Your task to perform on an android device: Go to Yahoo.com Image 0: 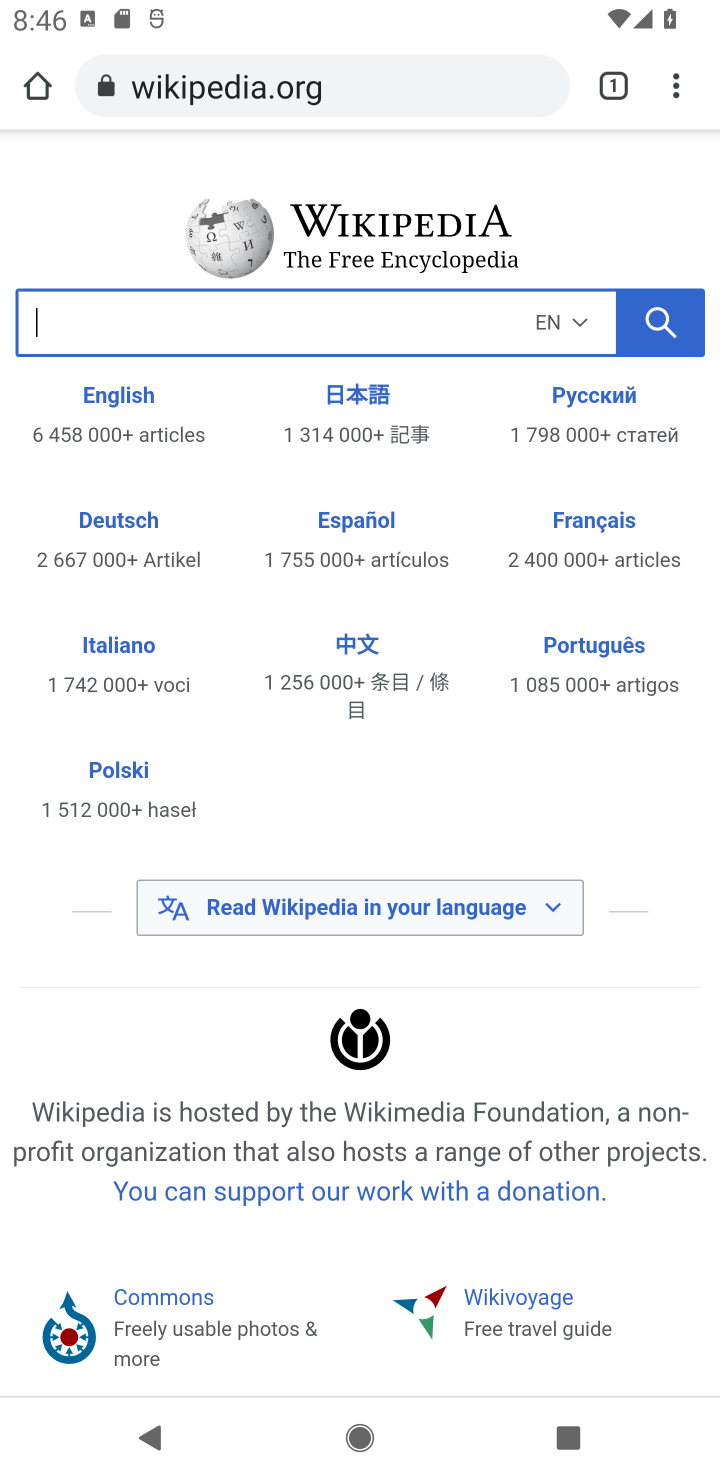
Step 0: click (410, 79)
Your task to perform on an android device: Go to Yahoo.com Image 1: 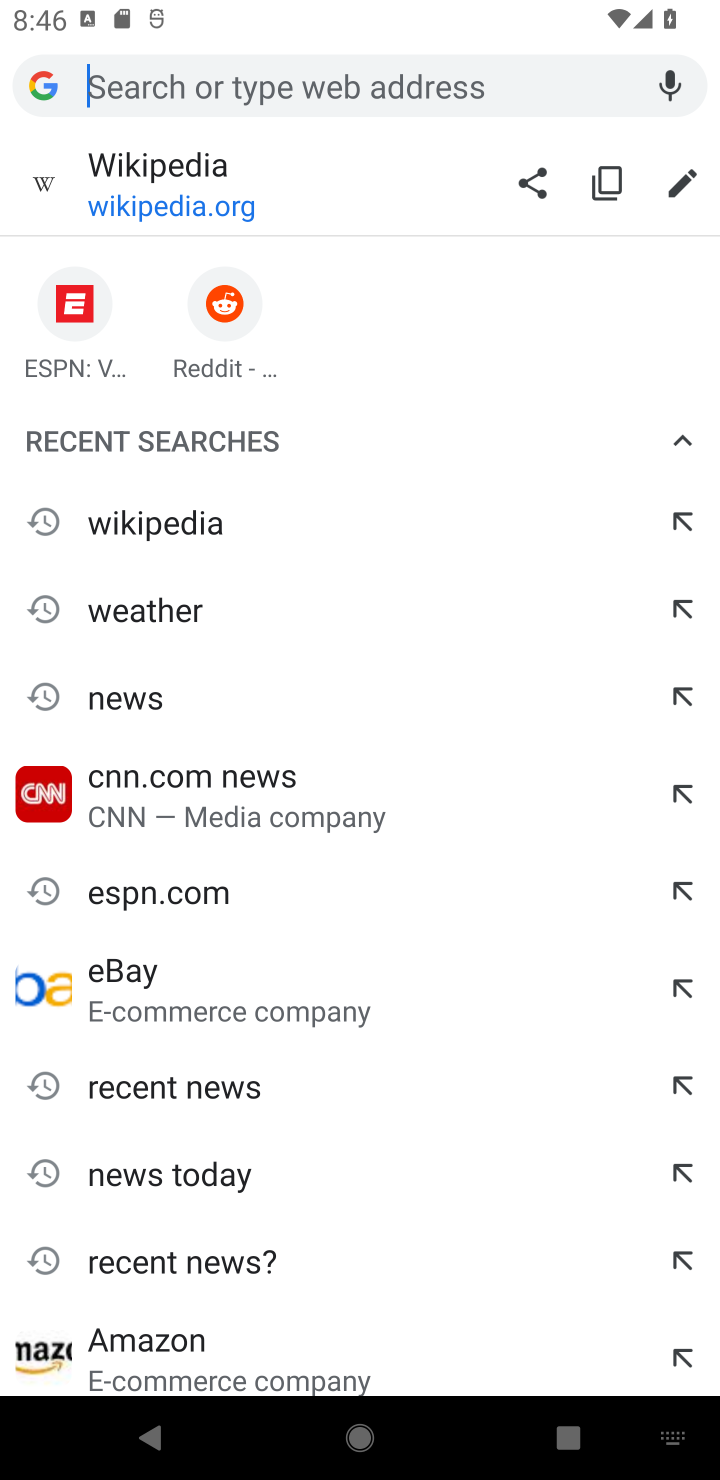
Step 1: type "Yahoo.com"
Your task to perform on an android device: Go to Yahoo.com Image 2: 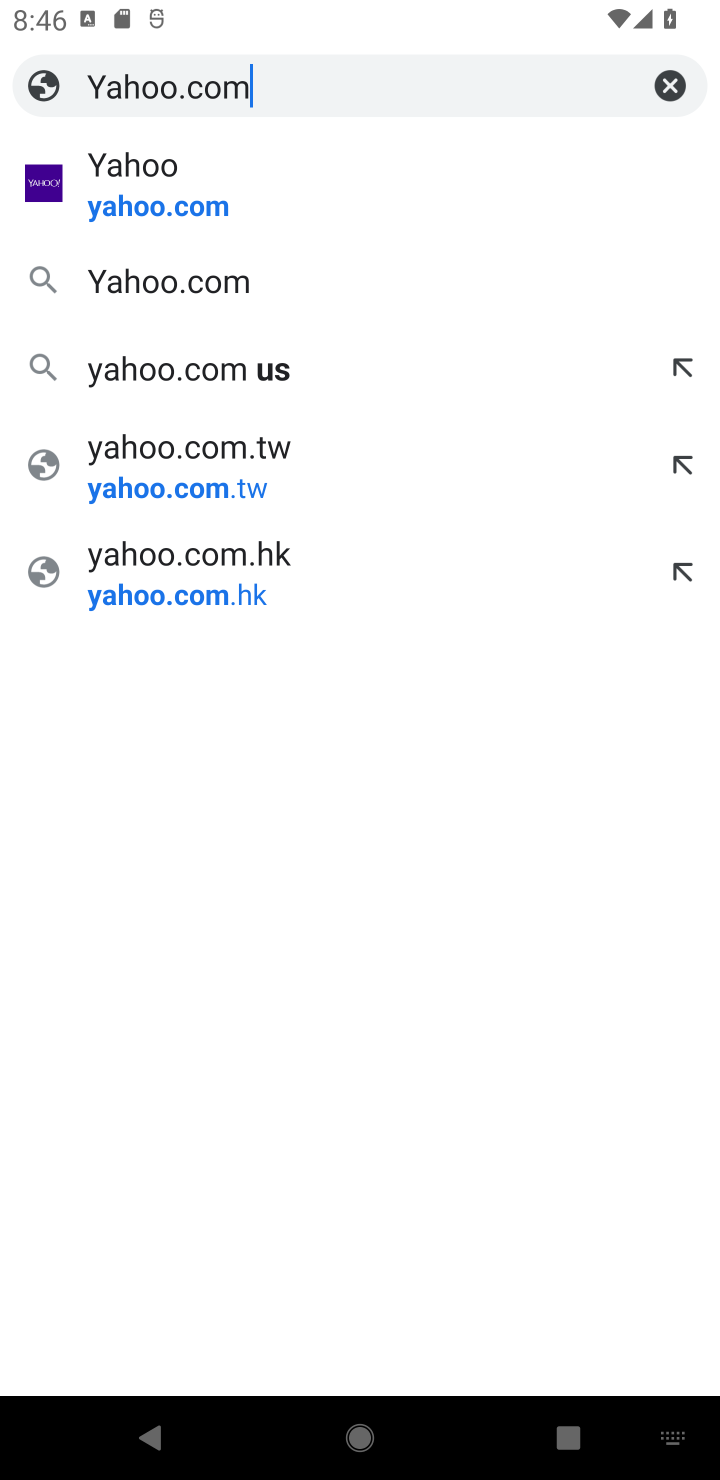
Step 2: click (164, 194)
Your task to perform on an android device: Go to Yahoo.com Image 3: 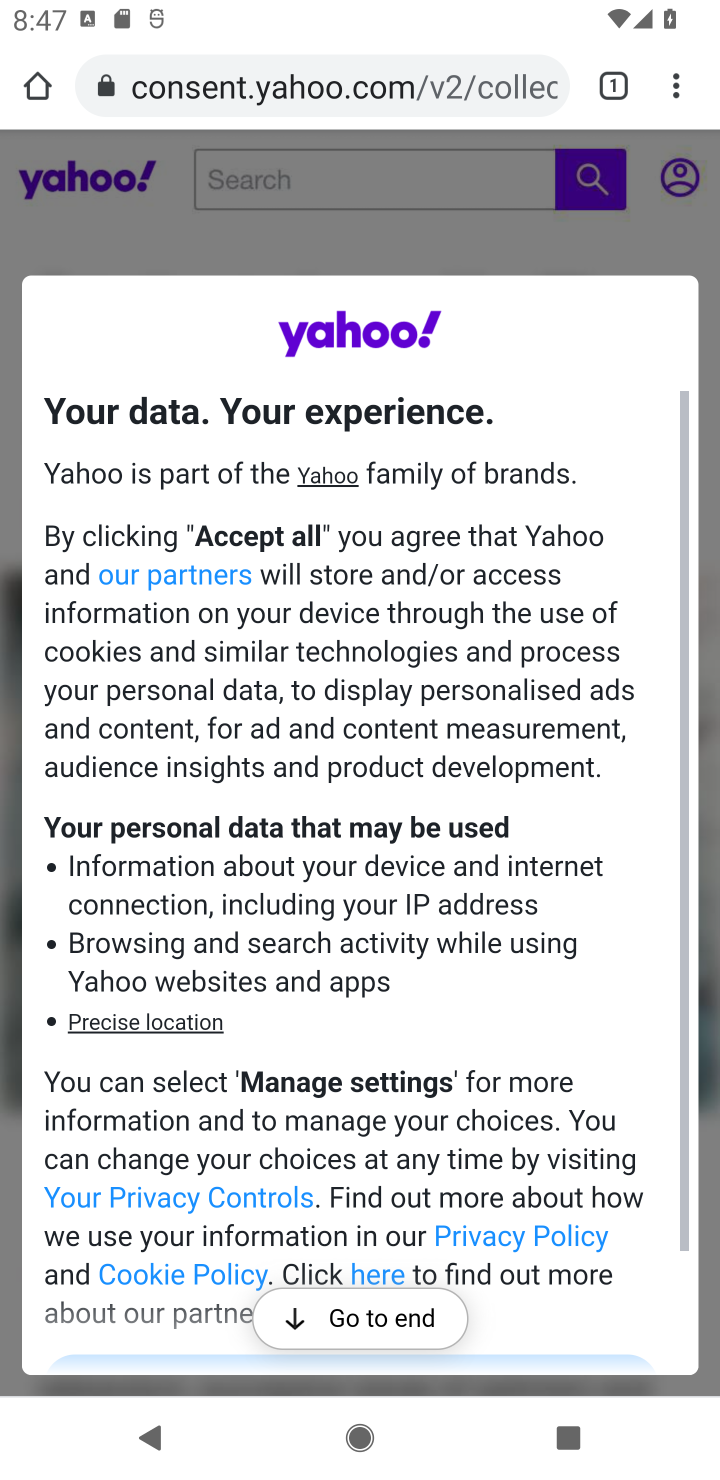
Step 3: click (306, 1315)
Your task to perform on an android device: Go to Yahoo.com Image 4: 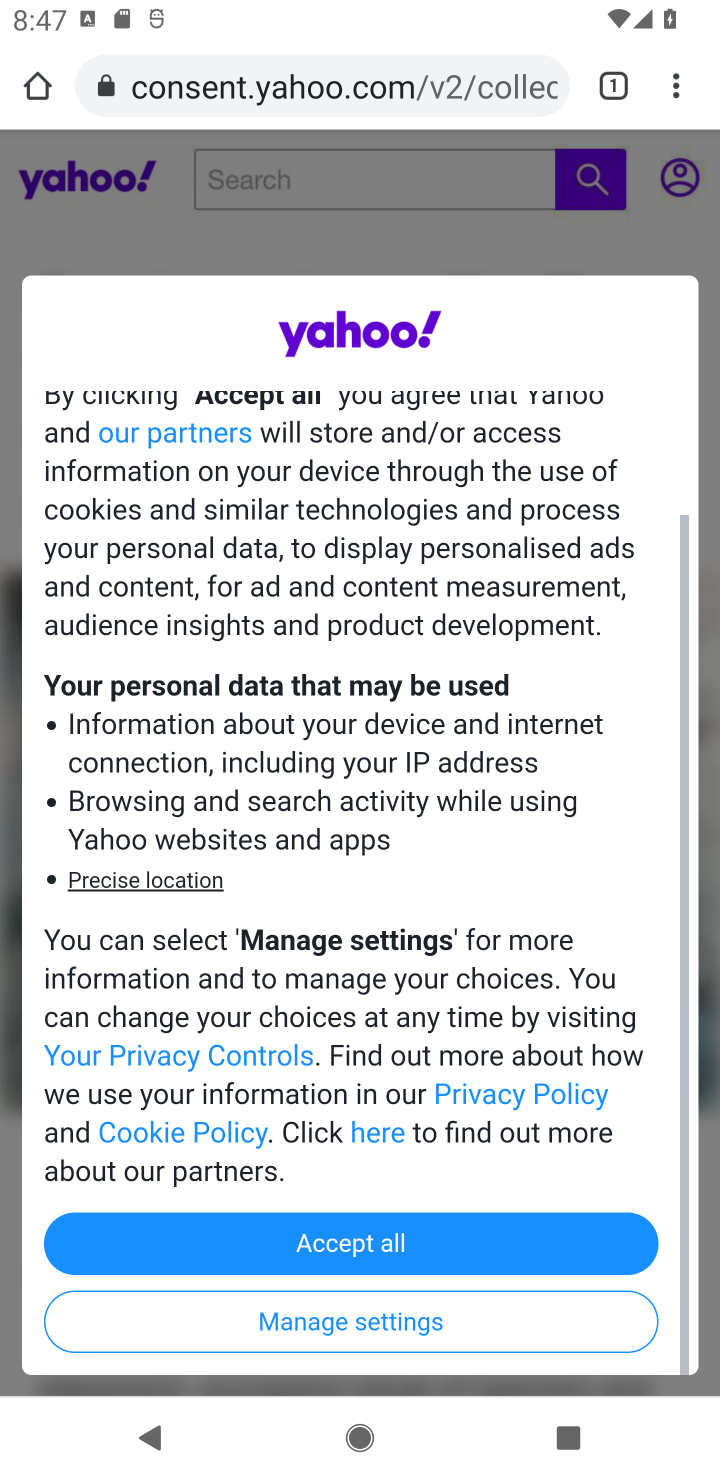
Step 4: click (353, 1242)
Your task to perform on an android device: Go to Yahoo.com Image 5: 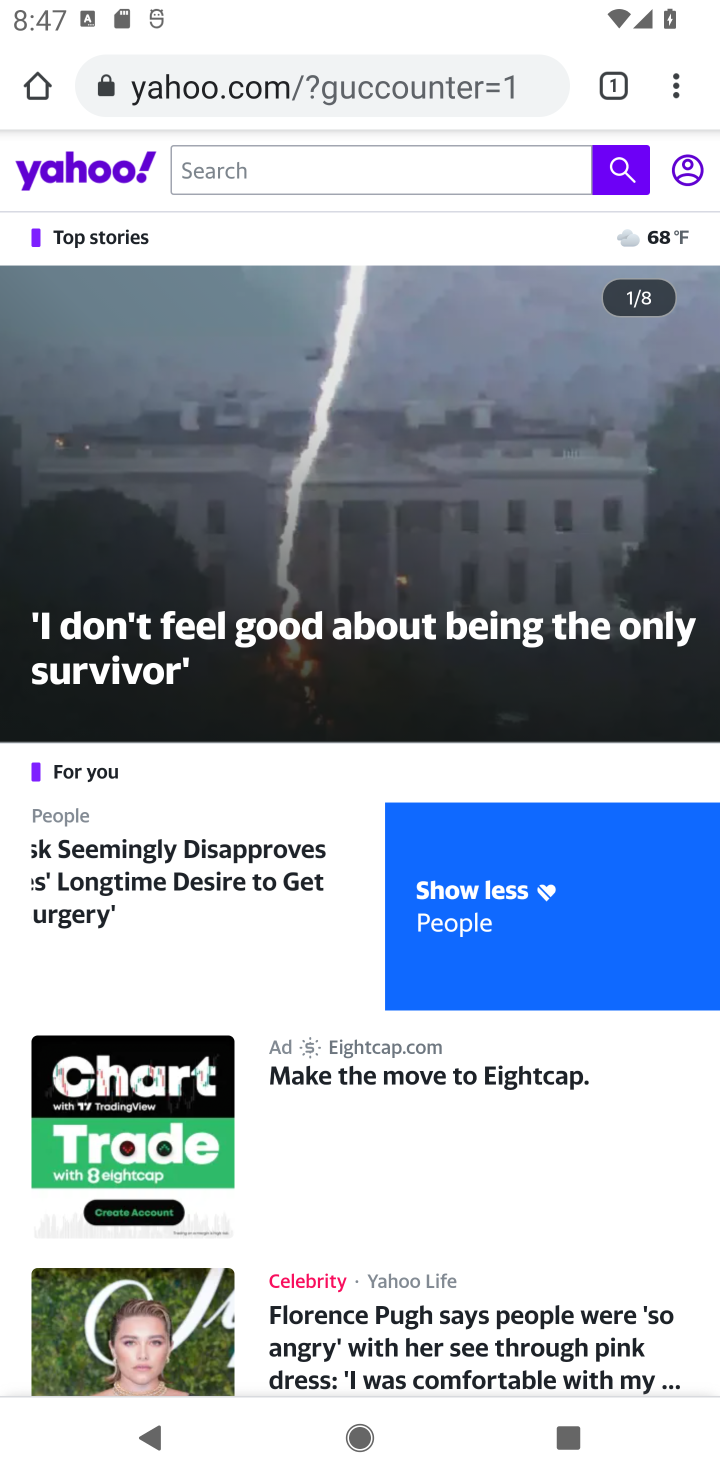
Step 5: task complete